Your task to perform on an android device: change keyboard looks Image 0: 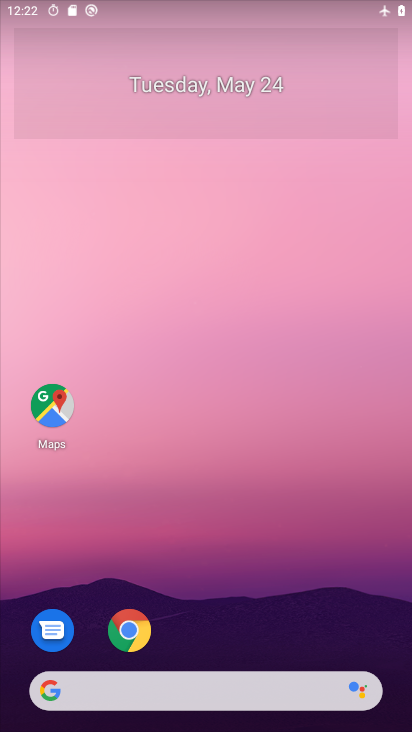
Step 0: drag from (224, 613) to (278, 16)
Your task to perform on an android device: change keyboard looks Image 1: 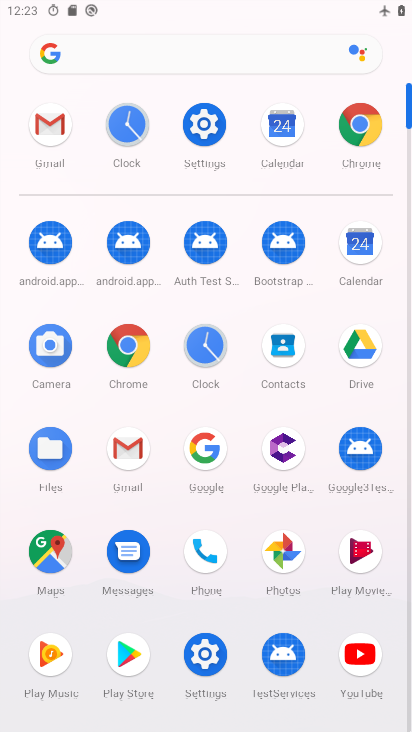
Step 1: click (203, 134)
Your task to perform on an android device: change keyboard looks Image 2: 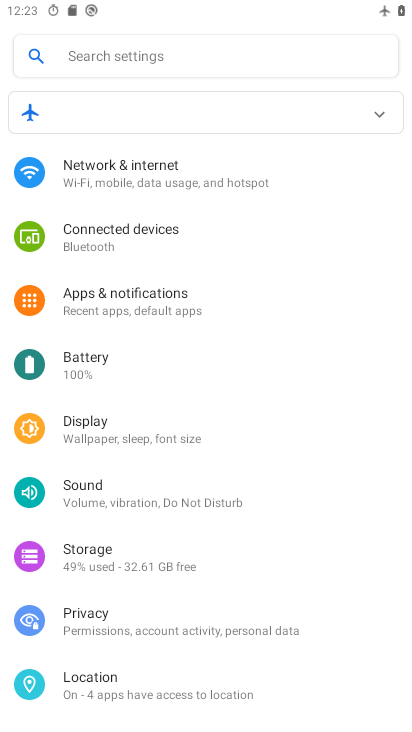
Step 2: drag from (166, 664) to (186, 304)
Your task to perform on an android device: change keyboard looks Image 3: 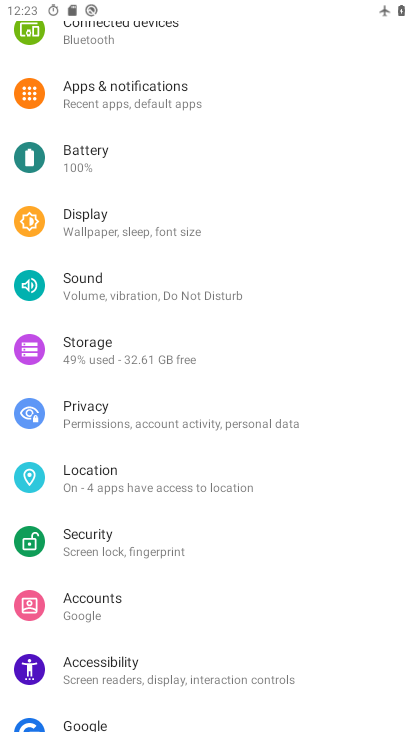
Step 3: drag from (157, 638) to (229, 245)
Your task to perform on an android device: change keyboard looks Image 4: 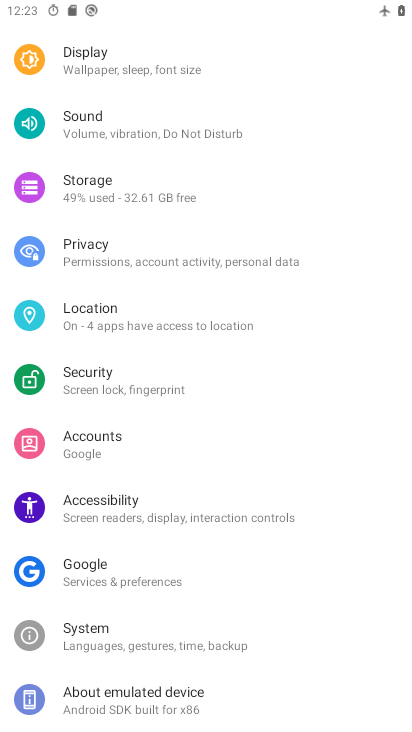
Step 4: click (168, 649)
Your task to perform on an android device: change keyboard looks Image 5: 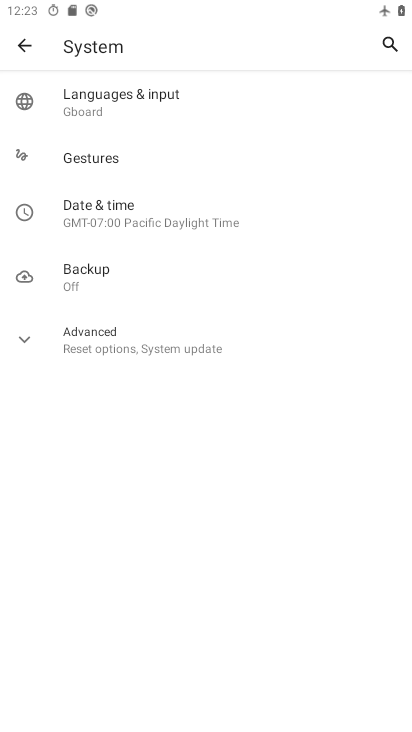
Step 5: click (171, 96)
Your task to perform on an android device: change keyboard looks Image 6: 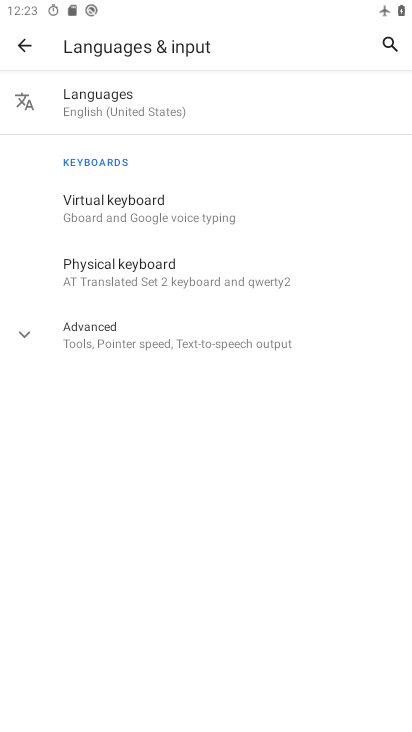
Step 6: click (169, 205)
Your task to perform on an android device: change keyboard looks Image 7: 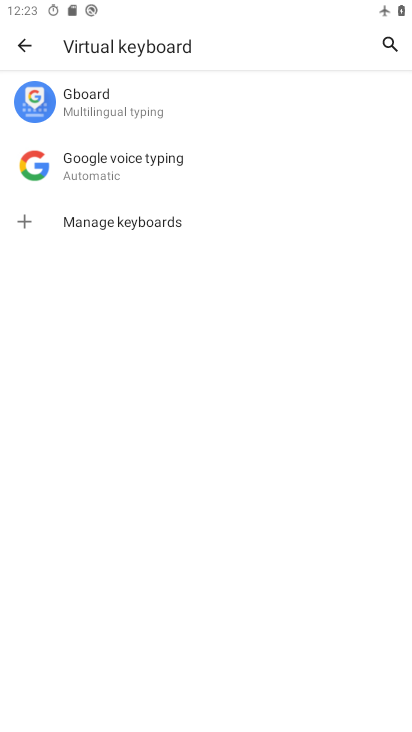
Step 7: click (114, 106)
Your task to perform on an android device: change keyboard looks Image 8: 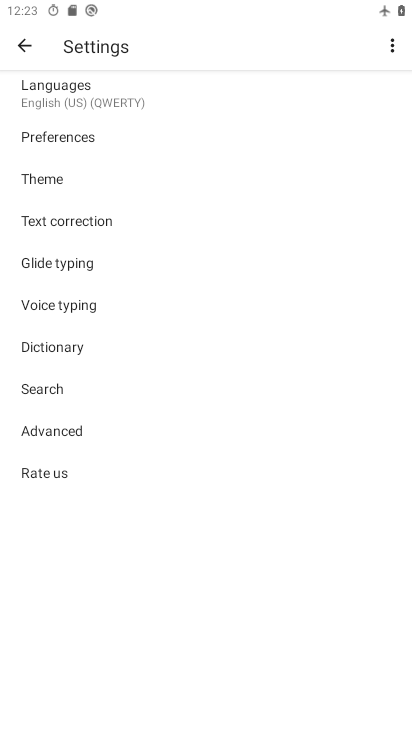
Step 8: click (66, 162)
Your task to perform on an android device: change keyboard looks Image 9: 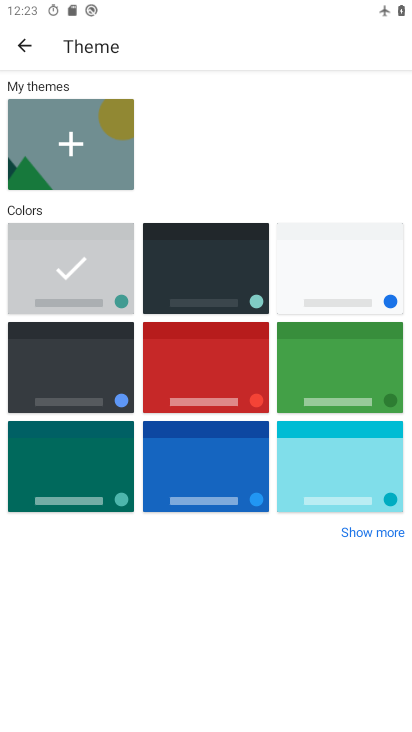
Step 9: click (204, 286)
Your task to perform on an android device: change keyboard looks Image 10: 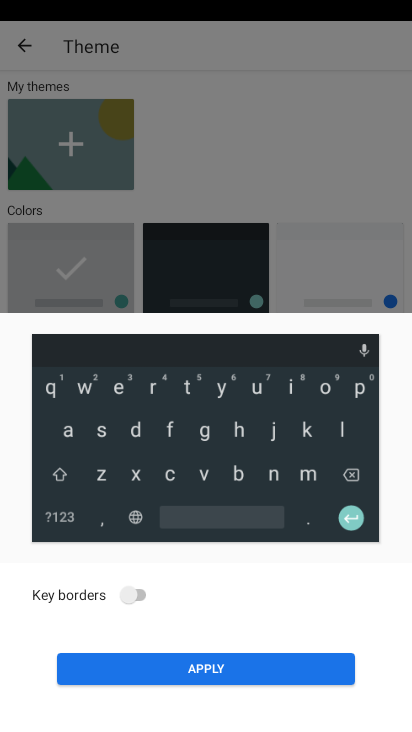
Step 10: click (203, 673)
Your task to perform on an android device: change keyboard looks Image 11: 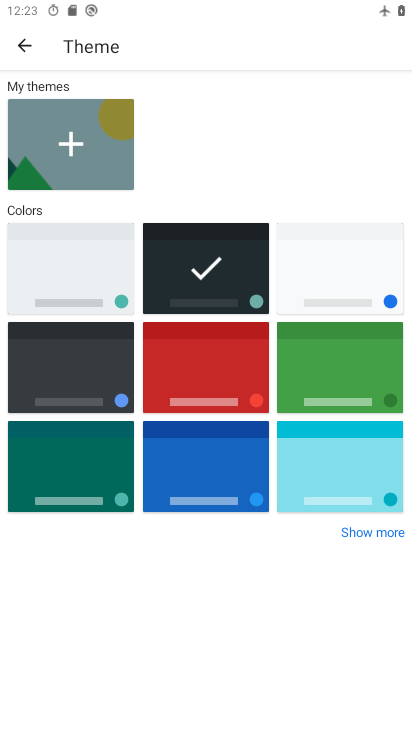
Step 11: task complete